Your task to perform on an android device: Open Android settings Image 0: 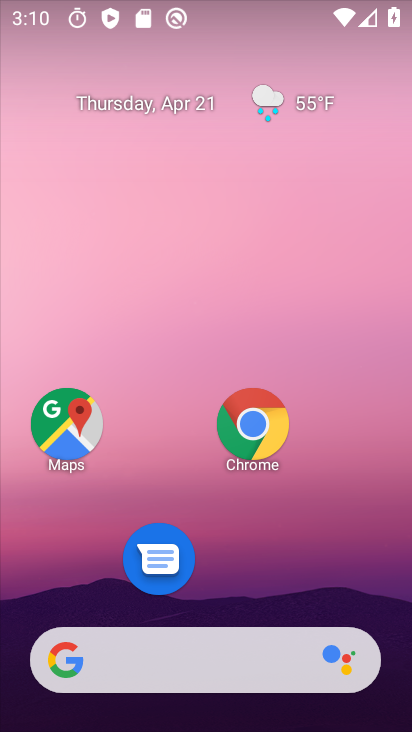
Step 0: drag from (258, 520) to (157, 10)
Your task to perform on an android device: Open Android settings Image 1: 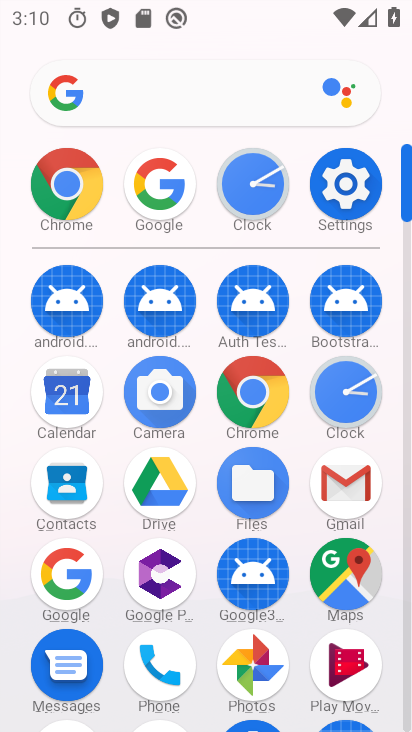
Step 1: click (349, 186)
Your task to perform on an android device: Open Android settings Image 2: 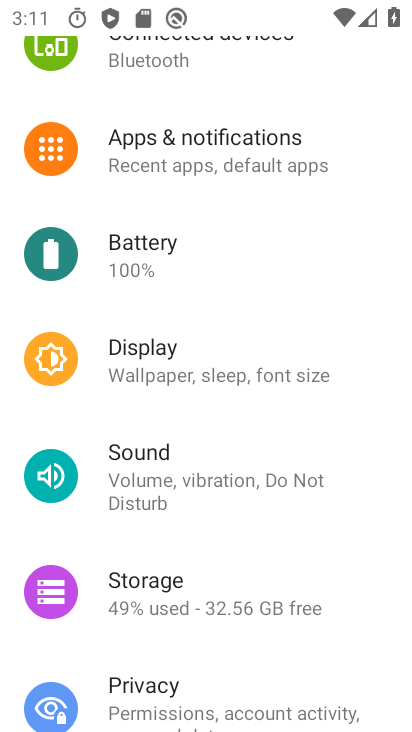
Step 2: task complete